Your task to perform on an android device: toggle sleep mode Image 0: 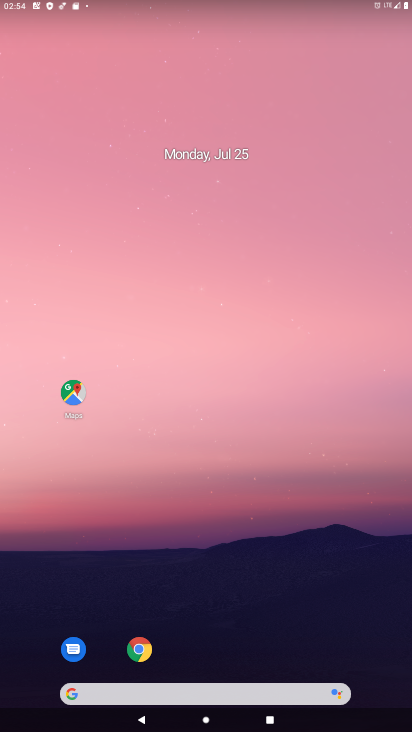
Step 0: drag from (383, 675) to (333, 222)
Your task to perform on an android device: toggle sleep mode Image 1: 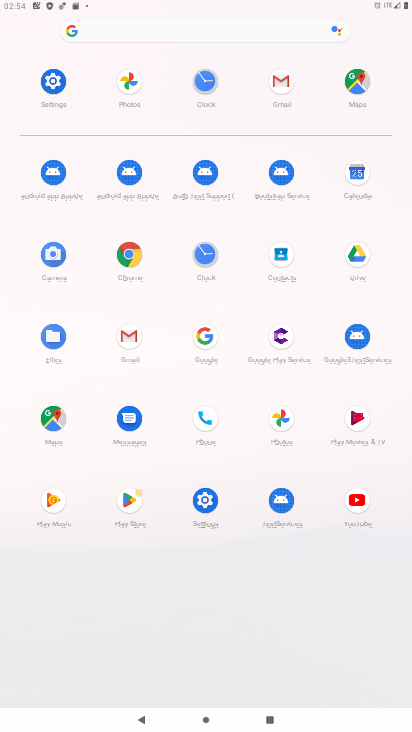
Step 1: click (205, 499)
Your task to perform on an android device: toggle sleep mode Image 2: 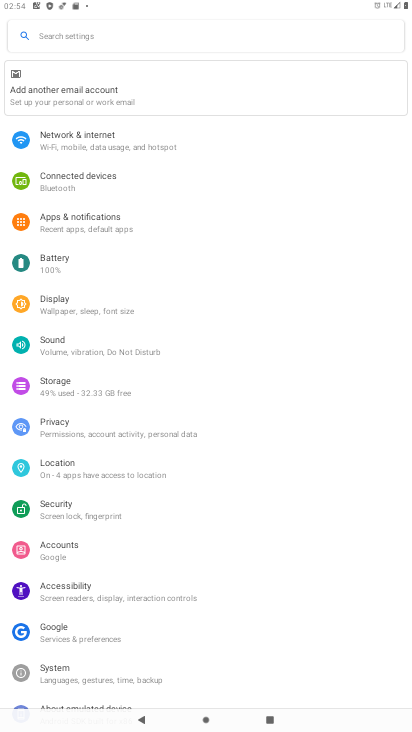
Step 2: click (70, 309)
Your task to perform on an android device: toggle sleep mode Image 3: 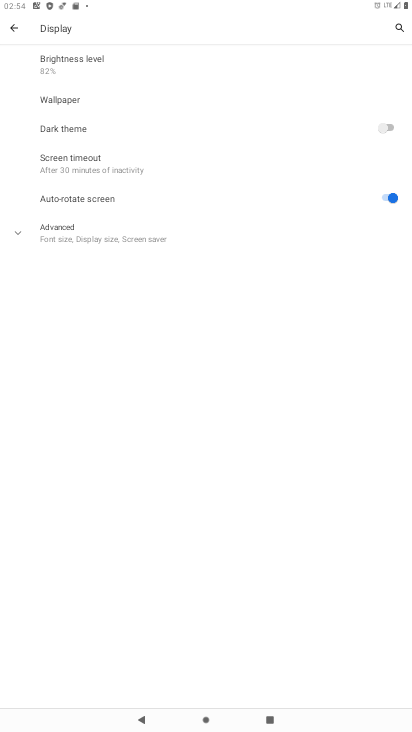
Step 3: click (17, 233)
Your task to perform on an android device: toggle sleep mode Image 4: 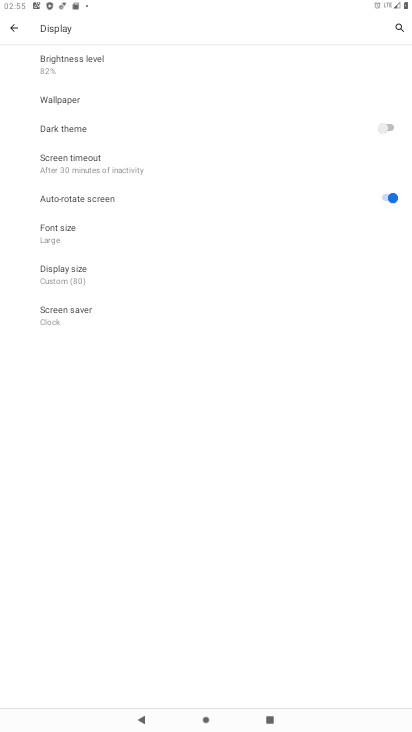
Step 4: task complete